Your task to perform on an android device: Clear the cart on newegg.com. Search for razer naga on newegg.com, select the first entry, add it to the cart, then select checkout. Image 0: 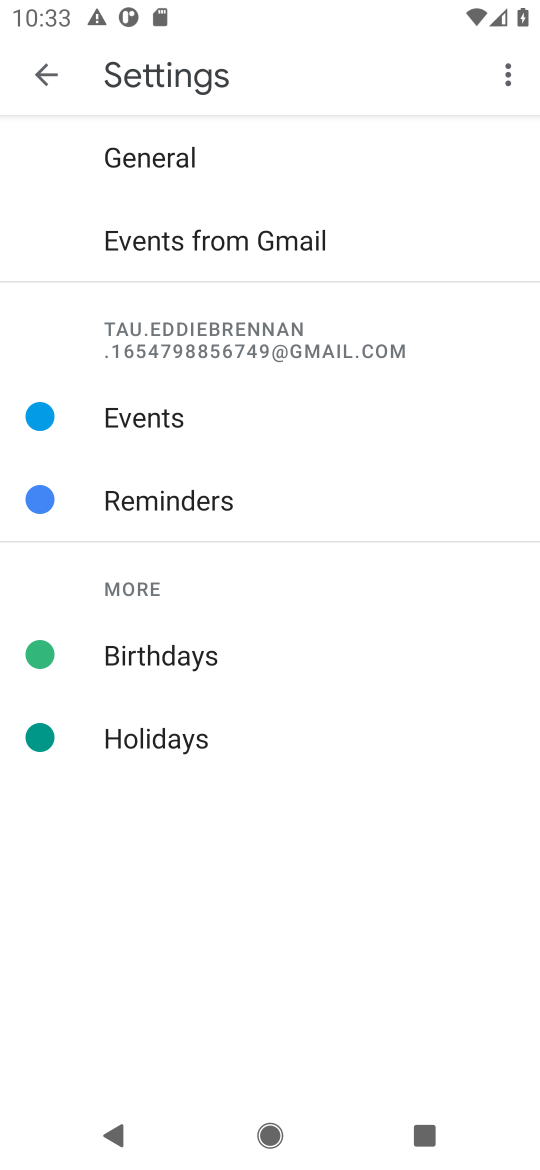
Step 0: press home button
Your task to perform on an android device: Clear the cart on newegg.com. Search for razer naga on newegg.com, select the first entry, add it to the cart, then select checkout. Image 1: 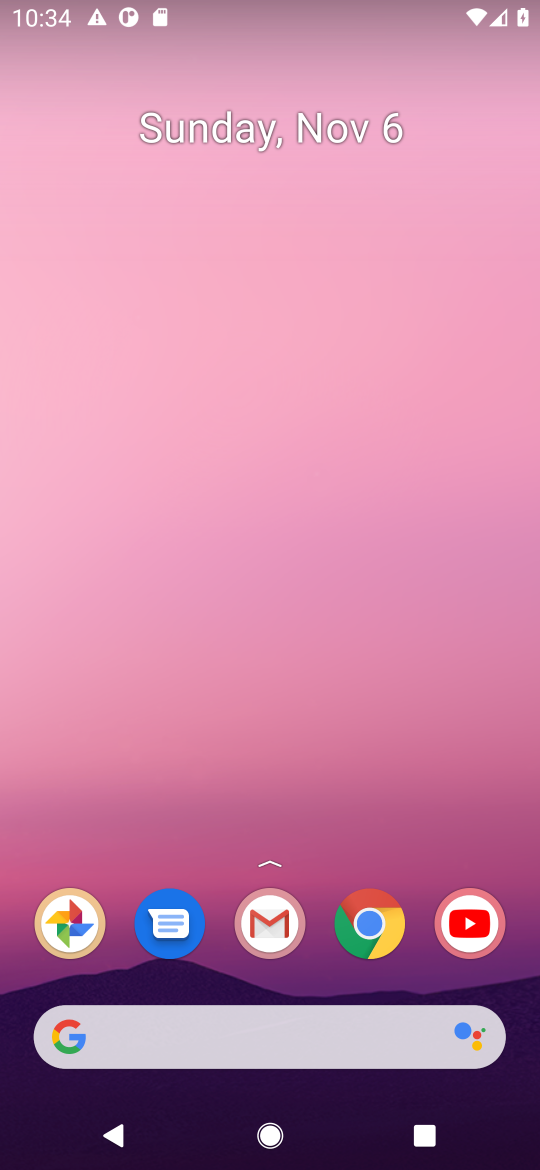
Step 1: click (361, 931)
Your task to perform on an android device: Clear the cart on newegg.com. Search for razer naga on newegg.com, select the first entry, add it to the cart, then select checkout. Image 2: 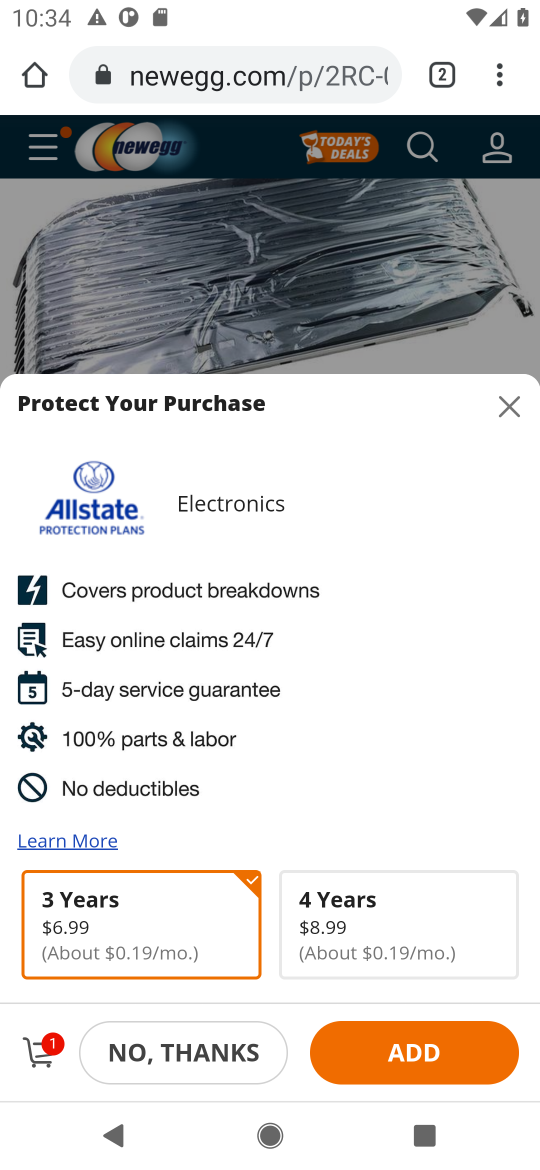
Step 2: click (41, 1056)
Your task to perform on an android device: Clear the cart on newegg.com. Search for razer naga on newegg.com, select the first entry, add it to the cart, then select checkout. Image 3: 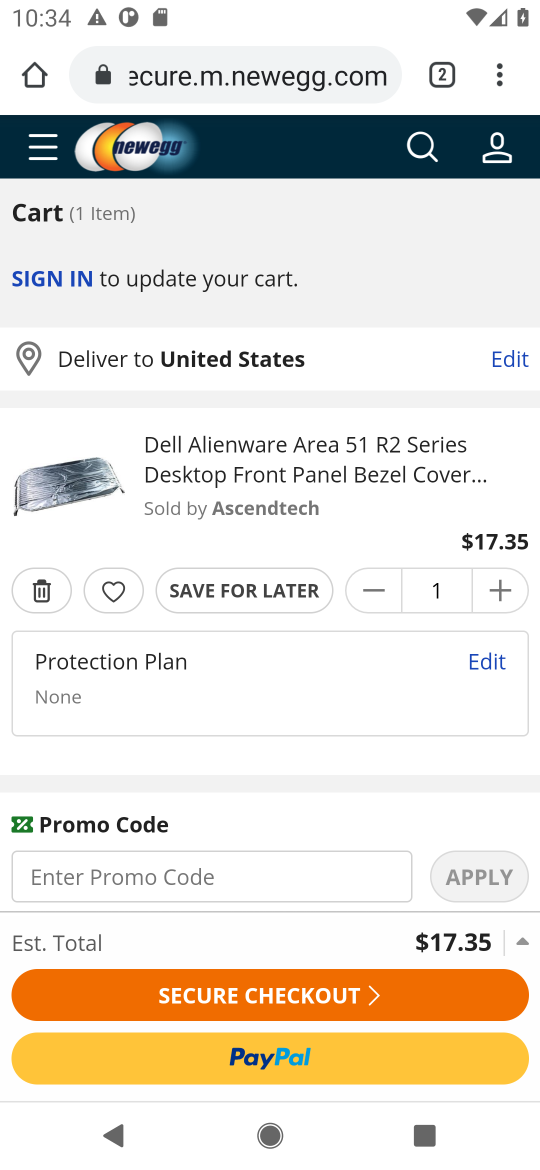
Step 3: click (34, 588)
Your task to perform on an android device: Clear the cart on newegg.com. Search for razer naga on newegg.com, select the first entry, add it to the cart, then select checkout. Image 4: 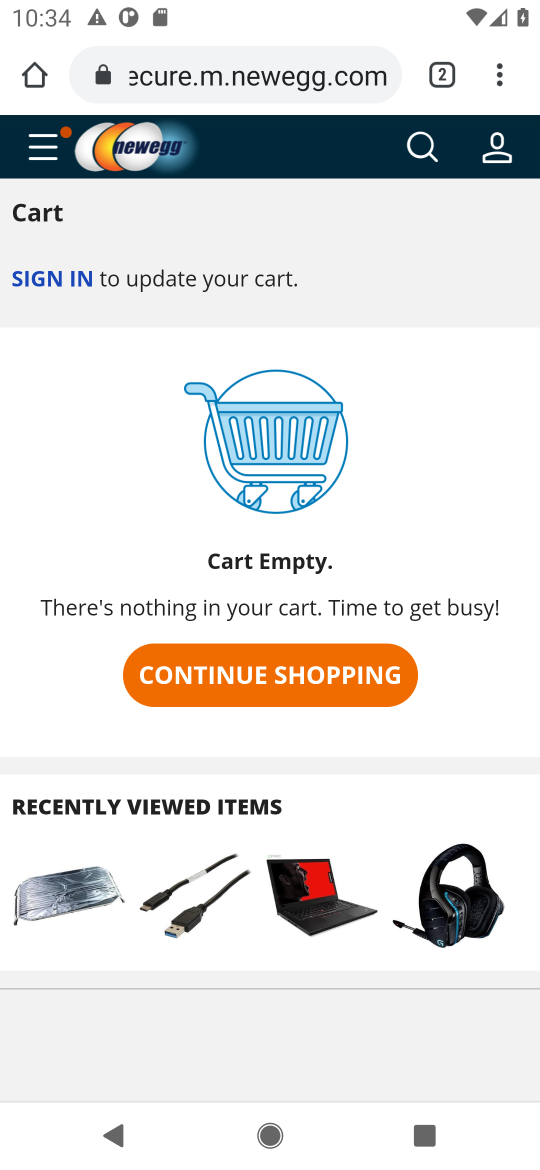
Step 4: click (273, 691)
Your task to perform on an android device: Clear the cart on newegg.com. Search for razer naga on newegg.com, select the first entry, add it to the cart, then select checkout. Image 5: 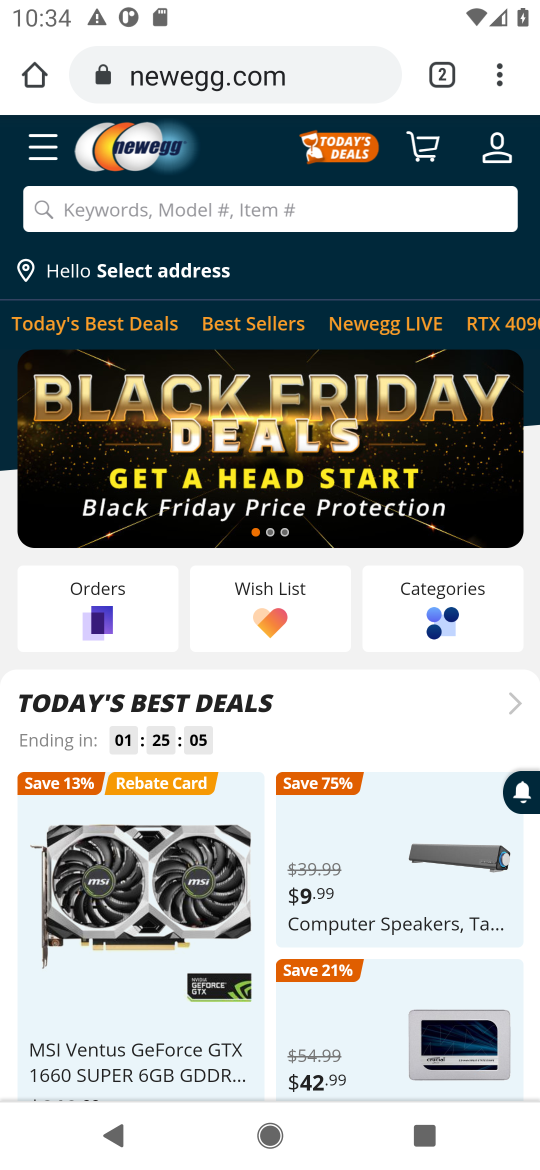
Step 5: click (267, 205)
Your task to perform on an android device: Clear the cart on newegg.com. Search for razer naga on newegg.com, select the first entry, add it to the cart, then select checkout. Image 6: 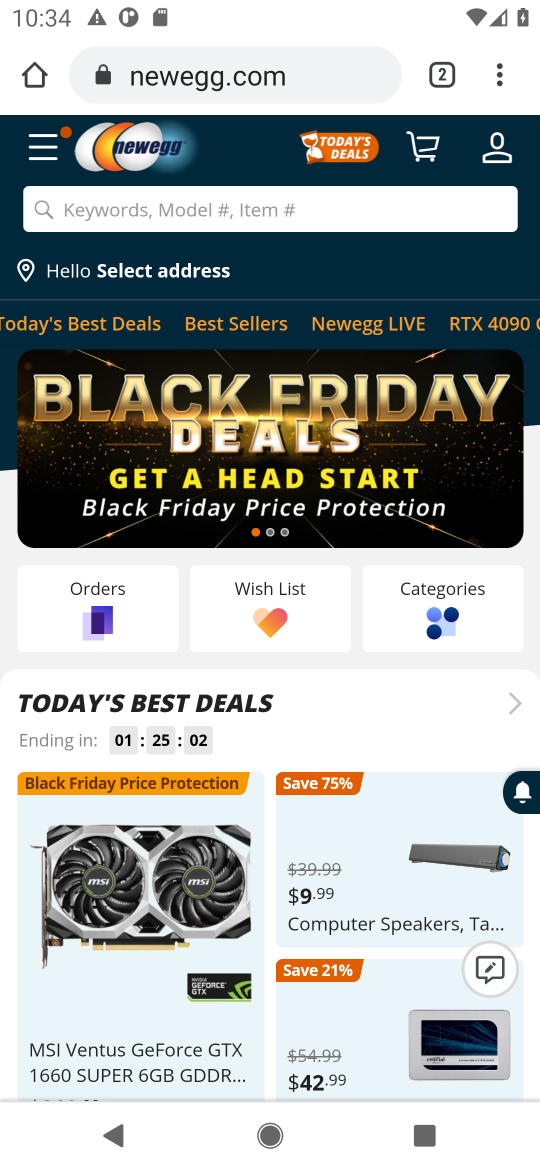
Step 6: type " razer naga"
Your task to perform on an android device: Clear the cart on newegg.com. Search for razer naga on newegg.com, select the first entry, add it to the cart, then select checkout. Image 7: 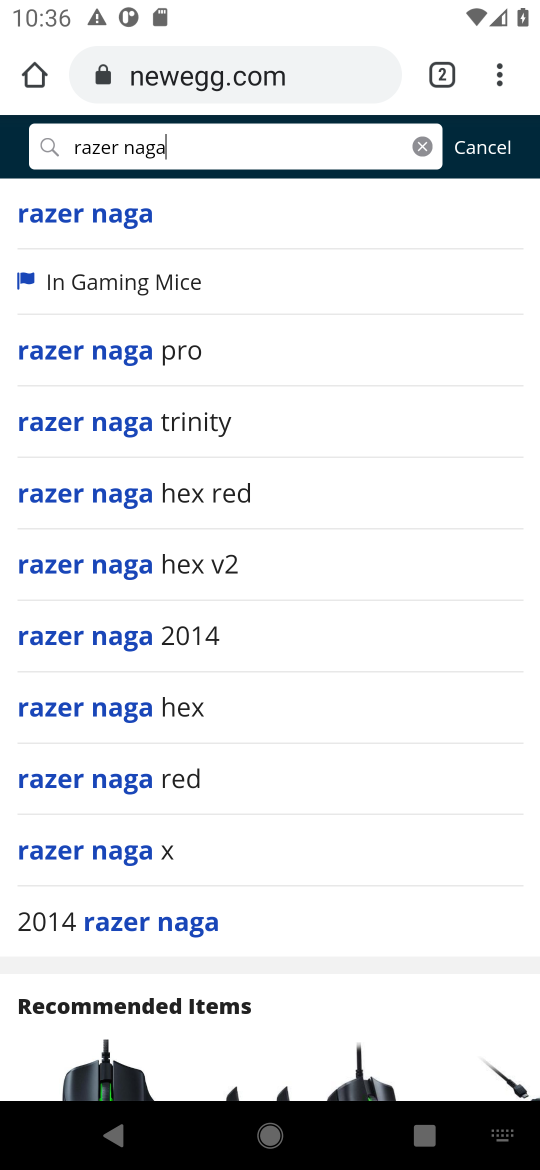
Step 7: click (111, 232)
Your task to perform on an android device: Clear the cart on newegg.com. Search for razer naga on newegg.com, select the first entry, add it to the cart, then select checkout. Image 8: 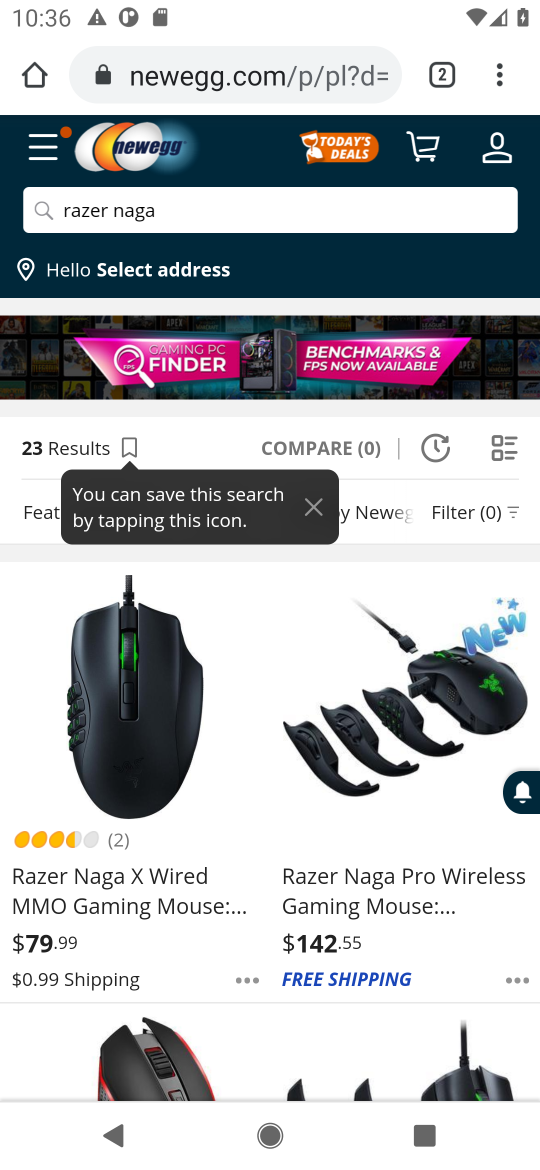
Step 8: click (123, 787)
Your task to perform on an android device: Clear the cart on newegg.com. Search for razer naga on newegg.com, select the first entry, add it to the cart, then select checkout. Image 9: 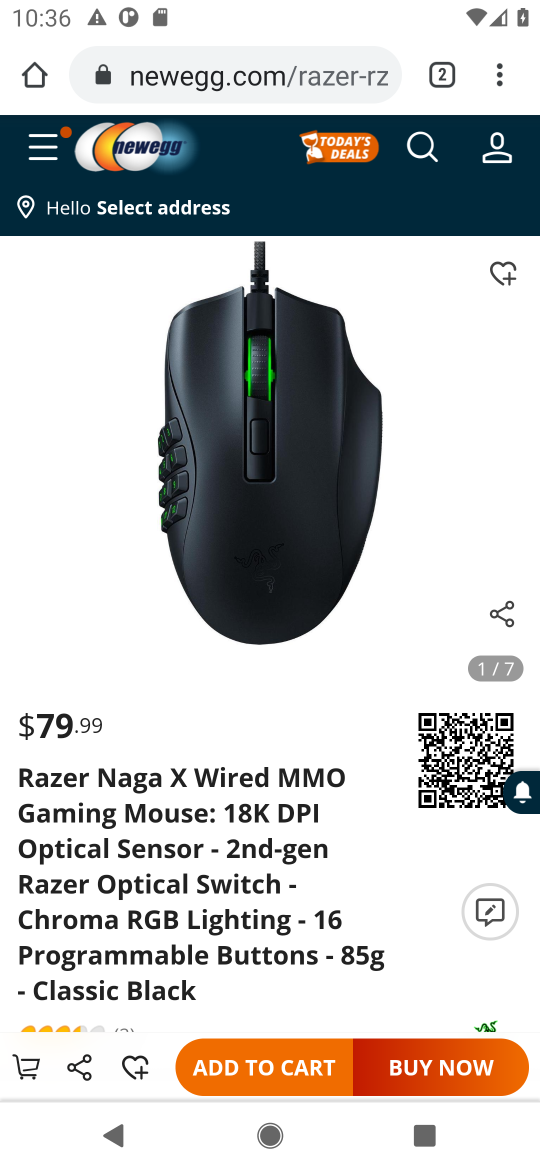
Step 9: click (272, 1066)
Your task to perform on an android device: Clear the cart on newegg.com. Search for razer naga on newegg.com, select the first entry, add it to the cart, then select checkout. Image 10: 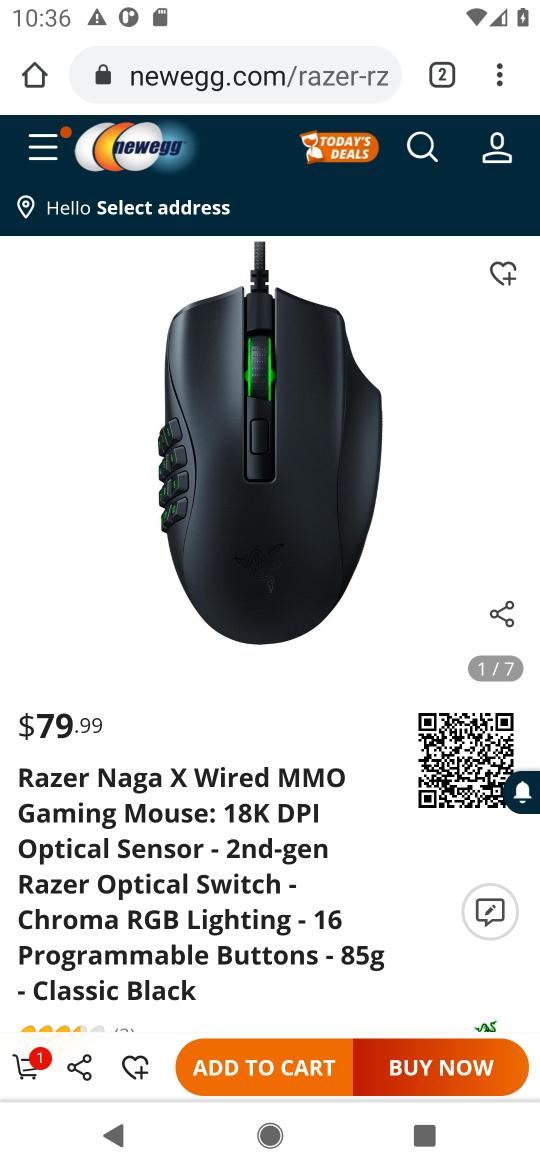
Step 10: click (27, 1065)
Your task to perform on an android device: Clear the cart on newegg.com. Search for razer naga on newegg.com, select the first entry, add it to the cart, then select checkout. Image 11: 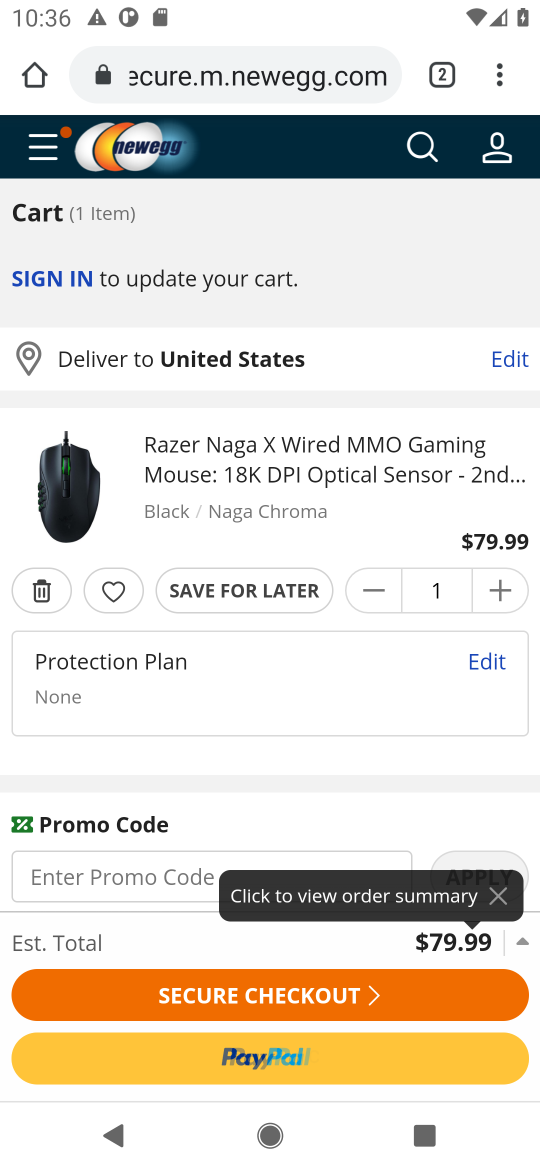
Step 11: click (227, 1002)
Your task to perform on an android device: Clear the cart on newegg.com. Search for razer naga on newegg.com, select the first entry, add it to the cart, then select checkout. Image 12: 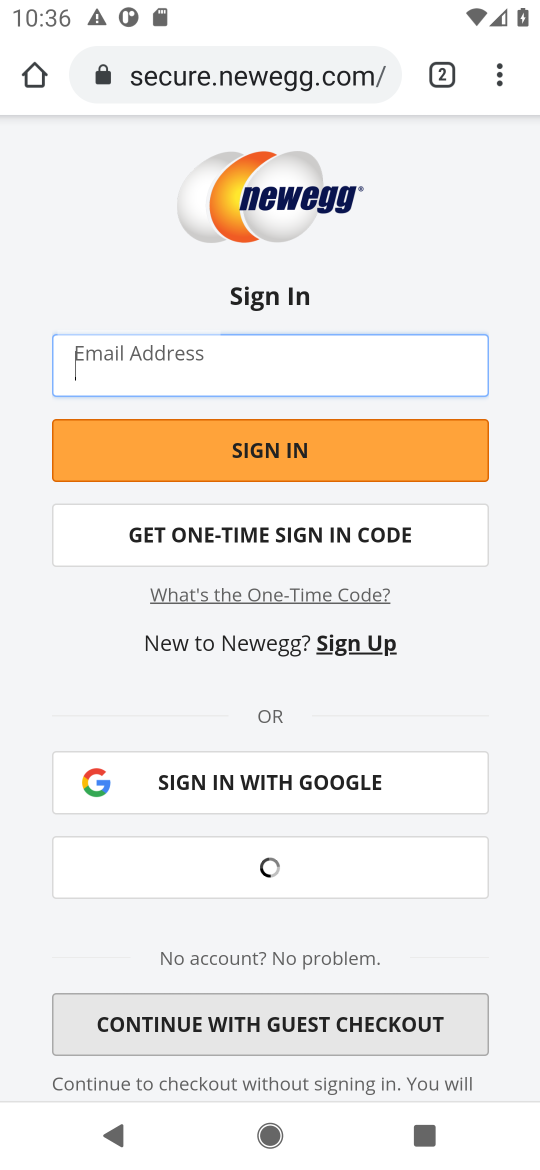
Step 12: task complete